Your task to perform on an android device: open app "PlayWell" (install if not already installed), go to login, and select forgot password Image 0: 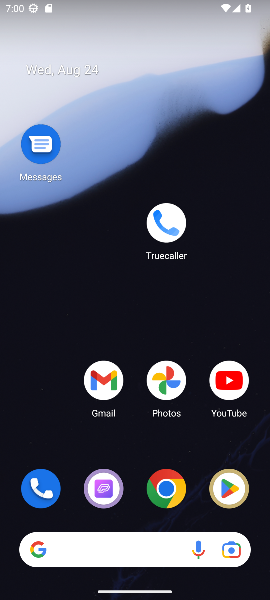
Step 0: click (222, 505)
Your task to perform on an android device: open app "PlayWell" (install if not already installed), go to login, and select forgot password Image 1: 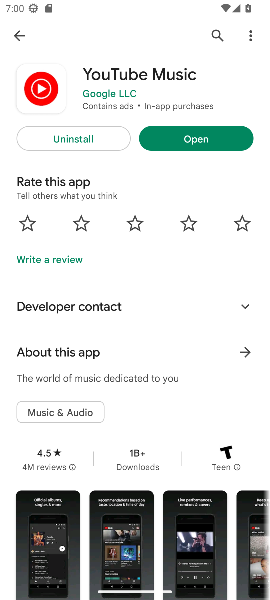
Step 1: click (203, 36)
Your task to perform on an android device: open app "PlayWell" (install if not already installed), go to login, and select forgot password Image 2: 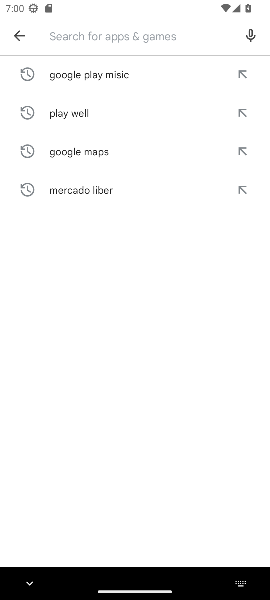
Step 2: type "playwell"
Your task to perform on an android device: open app "PlayWell" (install if not already installed), go to login, and select forgot password Image 3: 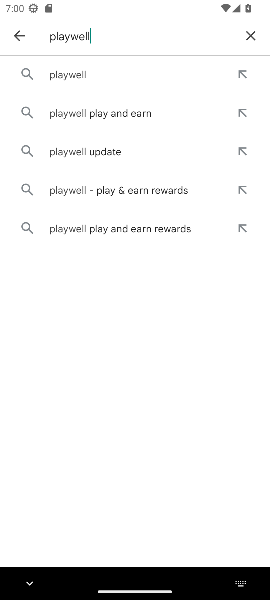
Step 3: click (127, 67)
Your task to perform on an android device: open app "PlayWell" (install if not already installed), go to login, and select forgot password Image 4: 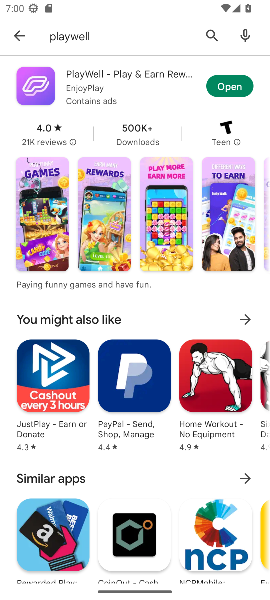
Step 4: click (233, 87)
Your task to perform on an android device: open app "PlayWell" (install if not already installed), go to login, and select forgot password Image 5: 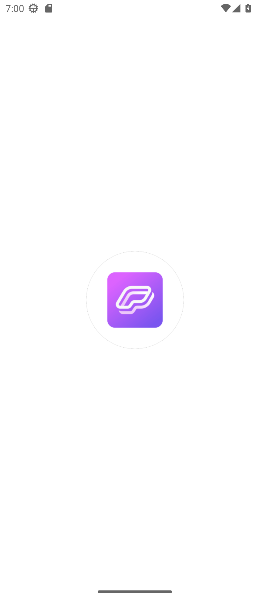
Step 5: task complete